Your task to perform on an android device: What's the weather? Image 0: 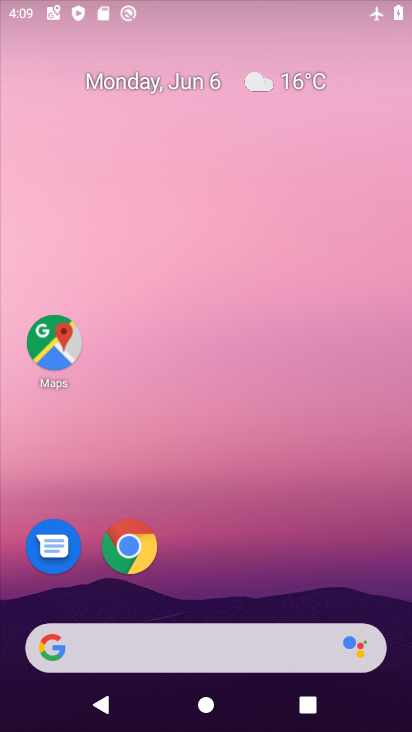
Step 0: drag from (265, 569) to (332, 0)
Your task to perform on an android device: What's the weather? Image 1: 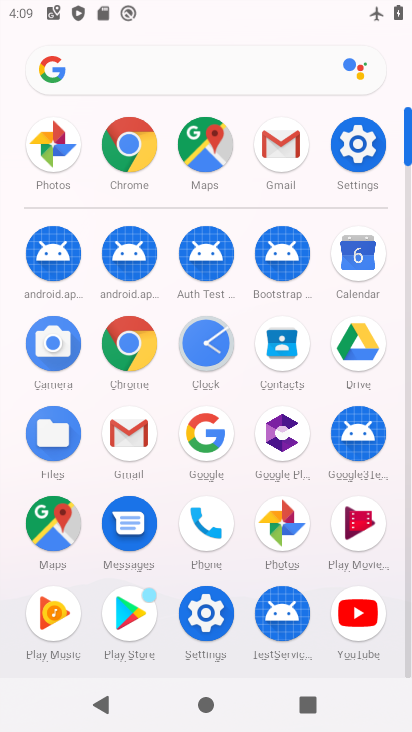
Step 1: press home button
Your task to perform on an android device: What's the weather? Image 2: 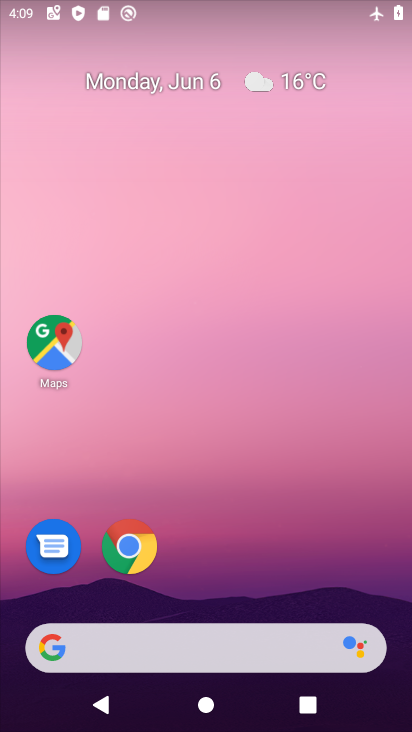
Step 2: click (302, 79)
Your task to perform on an android device: What's the weather? Image 3: 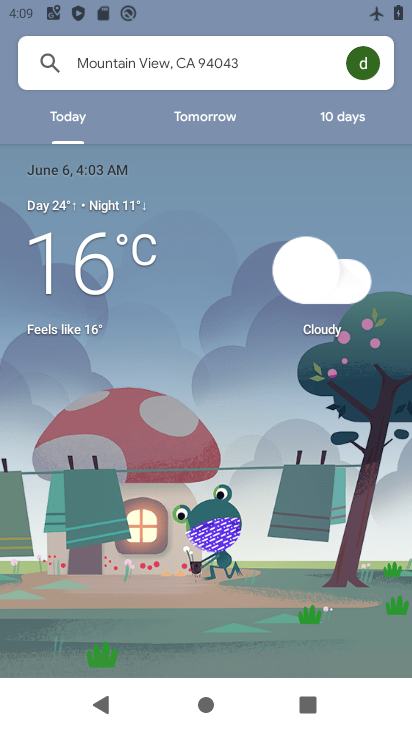
Step 3: task complete